Your task to perform on an android device: empty trash in the gmail app Image 0: 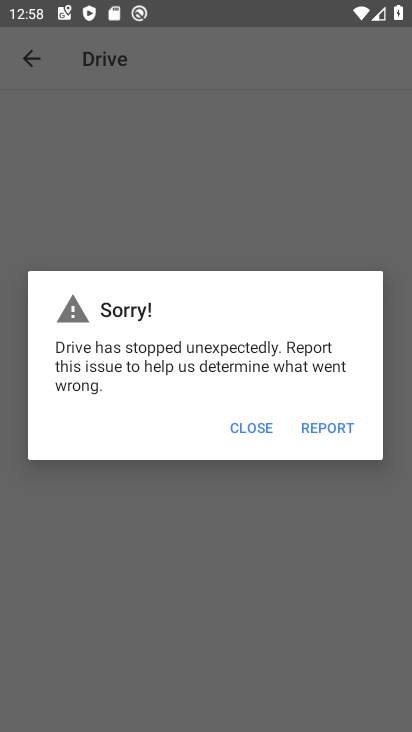
Step 0: press home button
Your task to perform on an android device: empty trash in the gmail app Image 1: 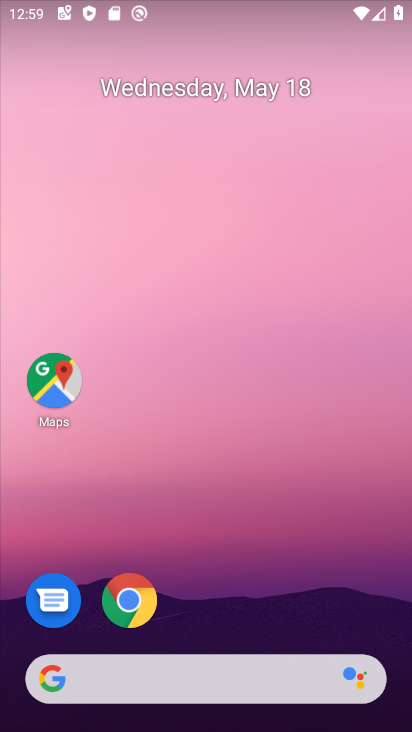
Step 1: drag from (247, 592) to (198, 185)
Your task to perform on an android device: empty trash in the gmail app Image 2: 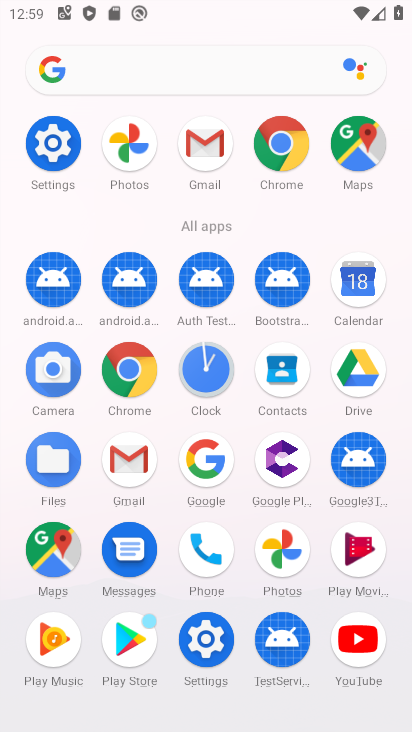
Step 2: click (201, 143)
Your task to perform on an android device: empty trash in the gmail app Image 3: 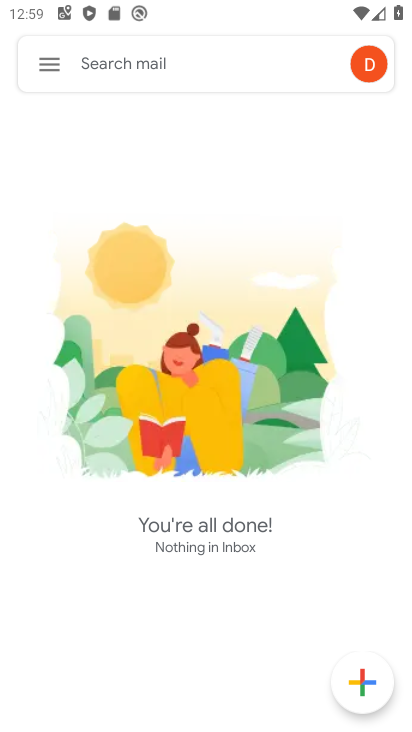
Step 3: click (48, 68)
Your task to perform on an android device: empty trash in the gmail app Image 4: 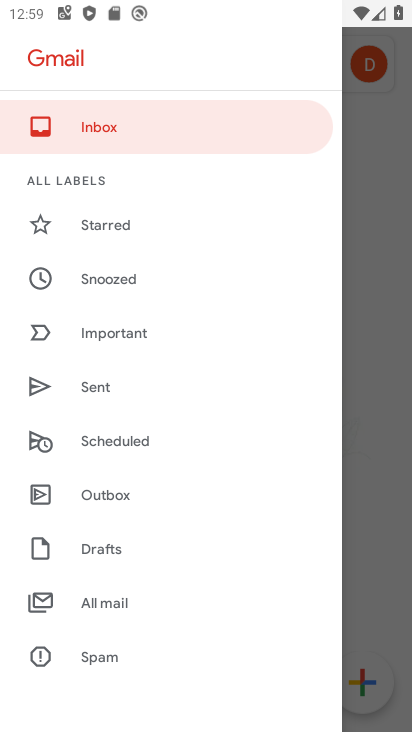
Step 4: drag from (119, 528) to (147, 421)
Your task to perform on an android device: empty trash in the gmail app Image 5: 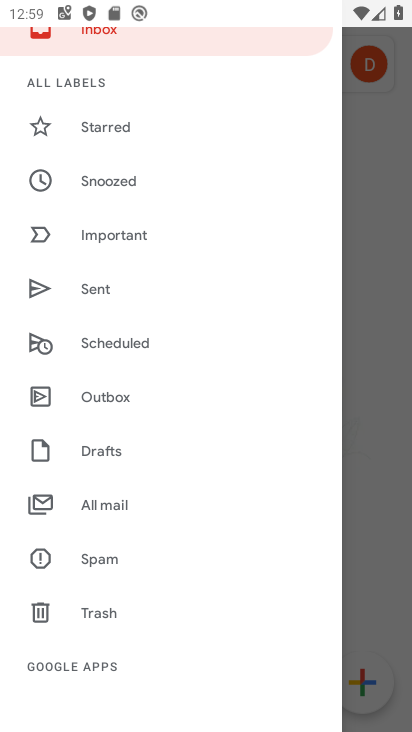
Step 5: click (88, 615)
Your task to perform on an android device: empty trash in the gmail app Image 6: 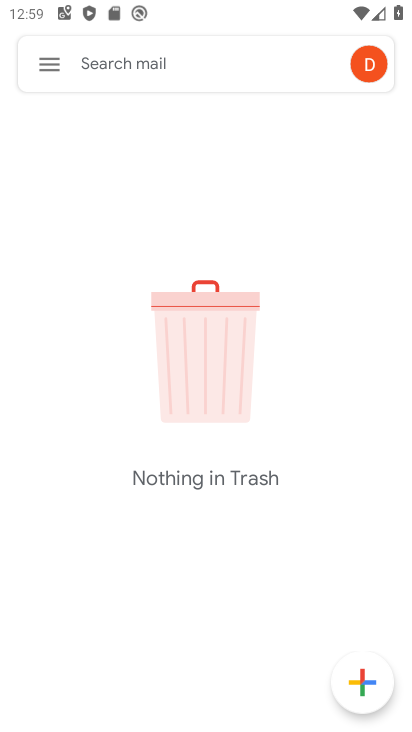
Step 6: task complete